Your task to perform on an android device: turn on javascript in the chrome app Image 0: 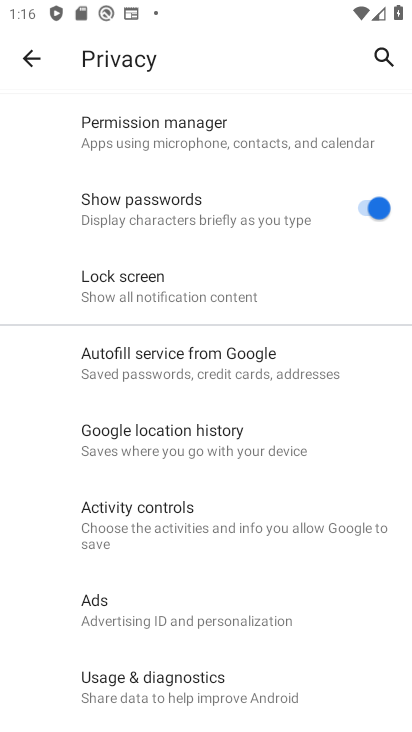
Step 0: press home button
Your task to perform on an android device: turn on javascript in the chrome app Image 1: 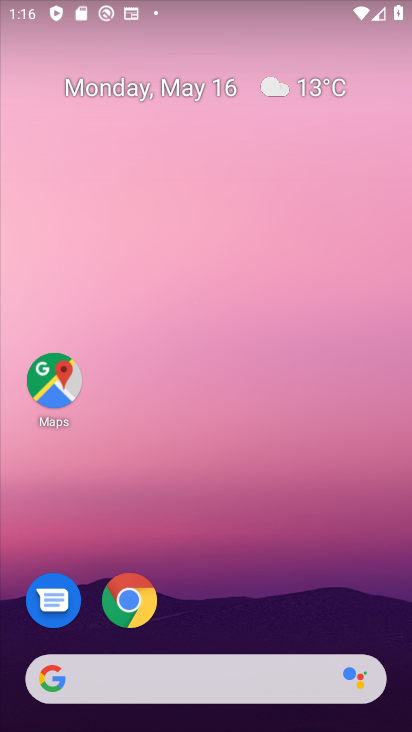
Step 1: drag from (198, 552) to (36, 49)
Your task to perform on an android device: turn on javascript in the chrome app Image 2: 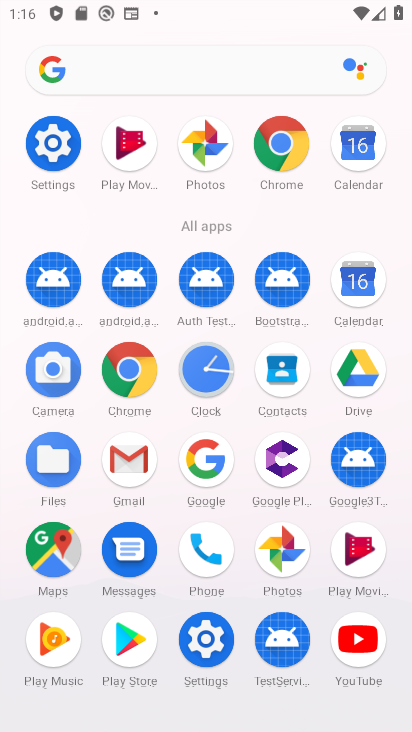
Step 2: click (273, 159)
Your task to perform on an android device: turn on javascript in the chrome app Image 3: 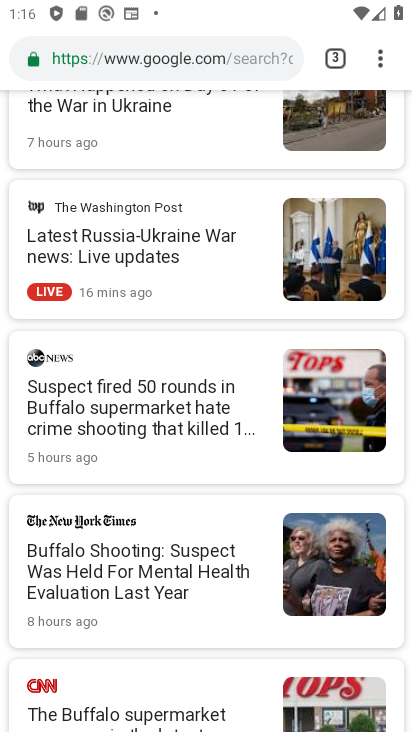
Step 3: click (380, 60)
Your task to perform on an android device: turn on javascript in the chrome app Image 4: 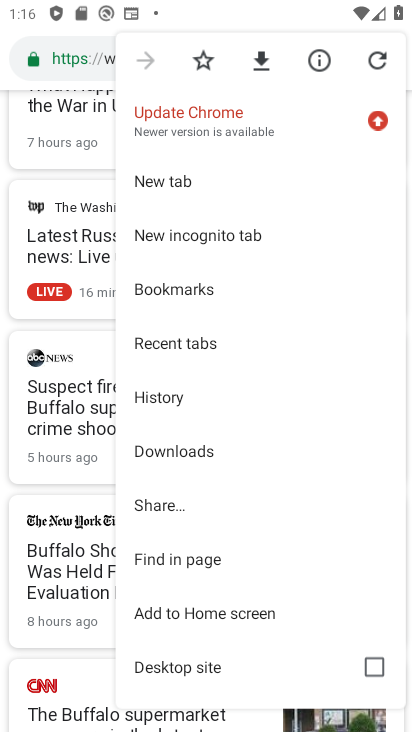
Step 4: drag from (182, 646) to (188, 366)
Your task to perform on an android device: turn on javascript in the chrome app Image 5: 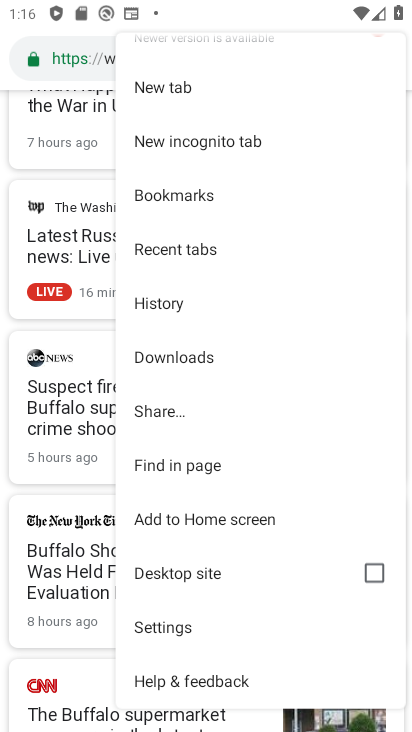
Step 5: click (167, 630)
Your task to perform on an android device: turn on javascript in the chrome app Image 6: 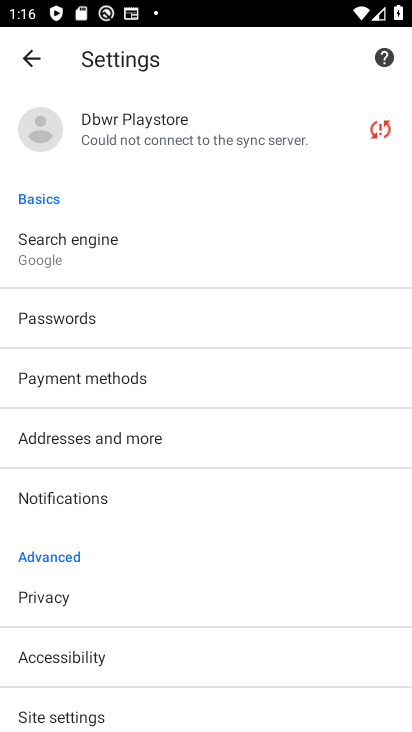
Step 6: click (89, 713)
Your task to perform on an android device: turn on javascript in the chrome app Image 7: 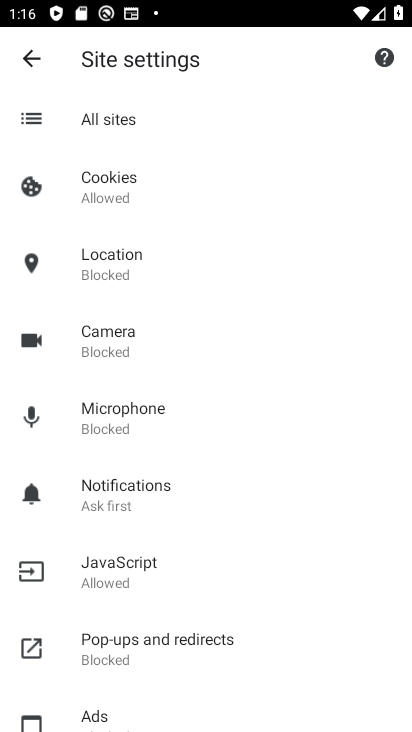
Step 7: click (133, 571)
Your task to perform on an android device: turn on javascript in the chrome app Image 8: 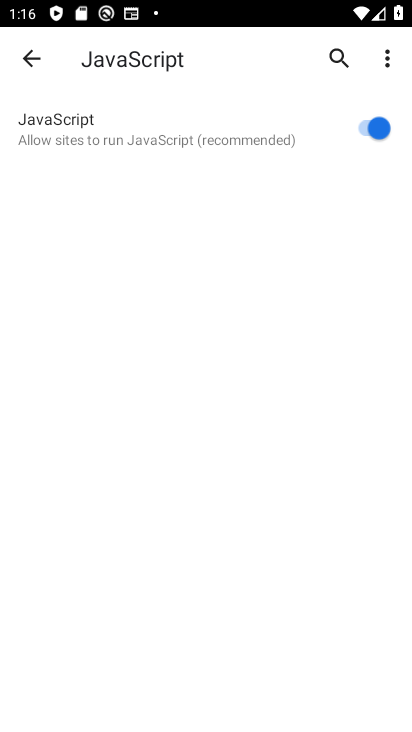
Step 8: task complete